Your task to perform on an android device: Show me popular games on the Play Store Image 0: 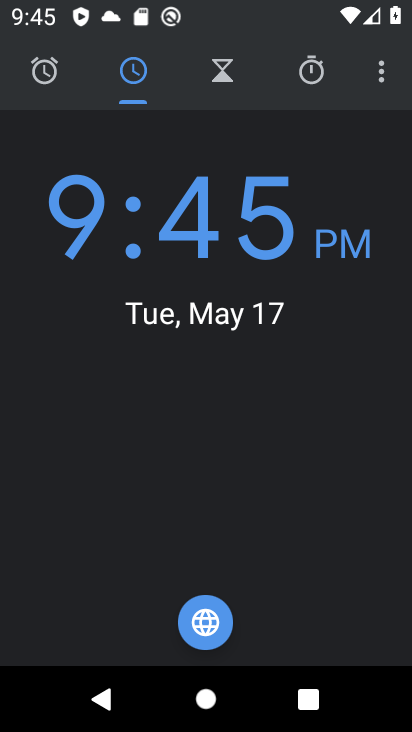
Step 0: press home button
Your task to perform on an android device: Show me popular games on the Play Store Image 1: 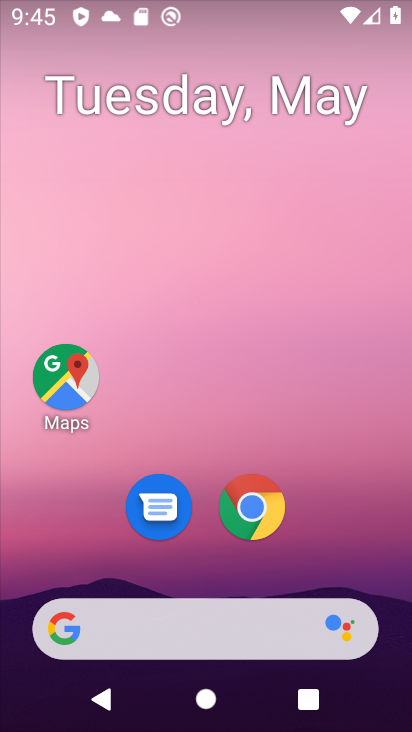
Step 1: drag from (323, 560) to (254, 152)
Your task to perform on an android device: Show me popular games on the Play Store Image 2: 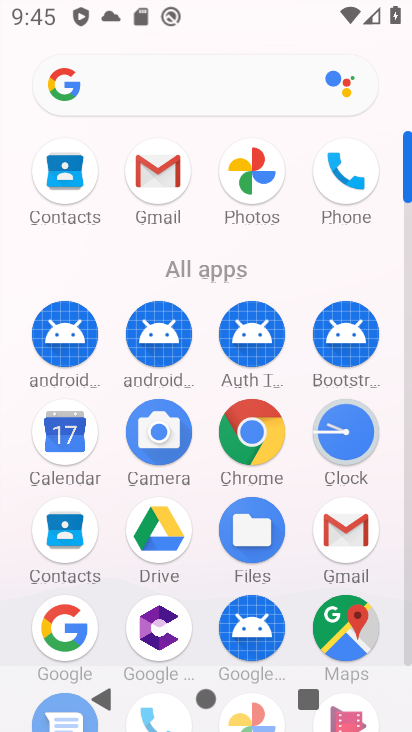
Step 2: click (407, 651)
Your task to perform on an android device: Show me popular games on the Play Store Image 3: 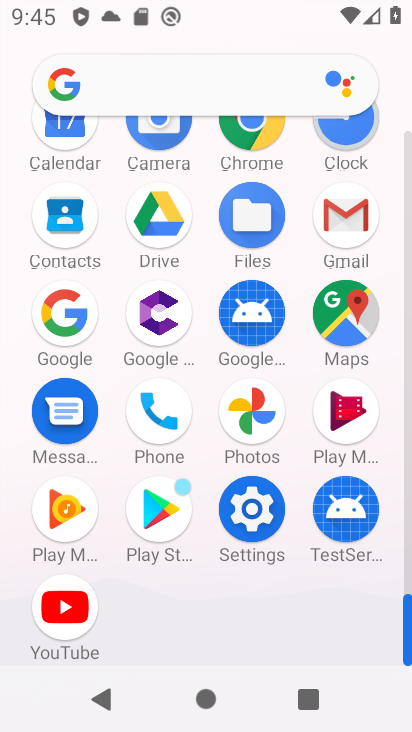
Step 3: click (154, 502)
Your task to perform on an android device: Show me popular games on the Play Store Image 4: 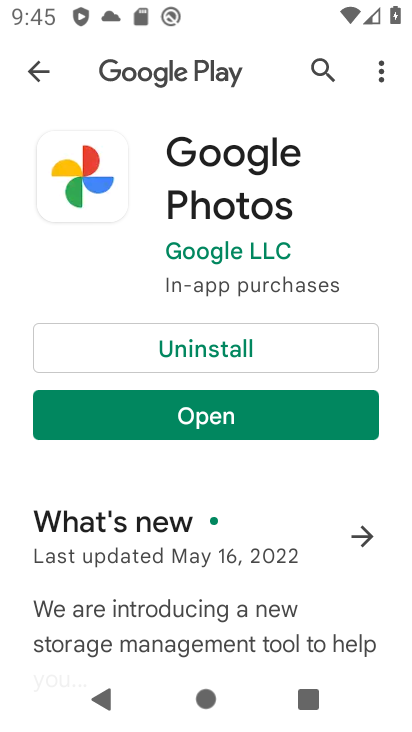
Step 4: click (36, 59)
Your task to perform on an android device: Show me popular games on the Play Store Image 5: 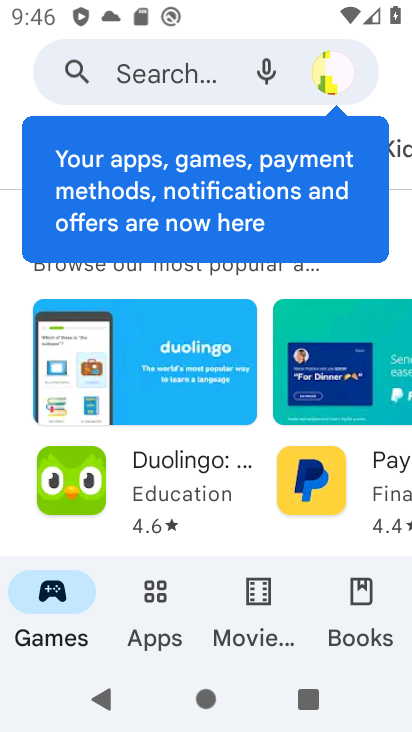
Step 5: drag from (232, 504) to (222, 582)
Your task to perform on an android device: Show me popular games on the Play Store Image 6: 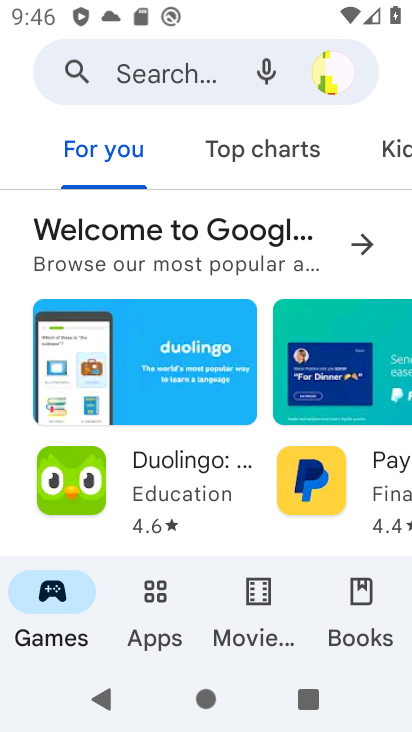
Step 6: click (216, 262)
Your task to perform on an android device: Show me popular games on the Play Store Image 7: 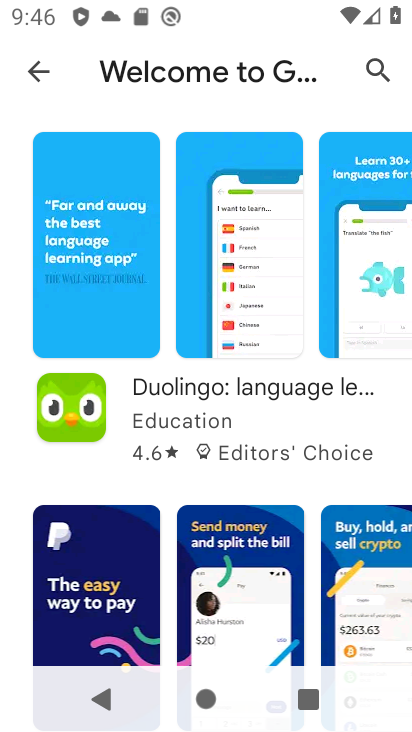
Step 7: task complete